Your task to perform on an android device: Open Yahoo.com Image 0: 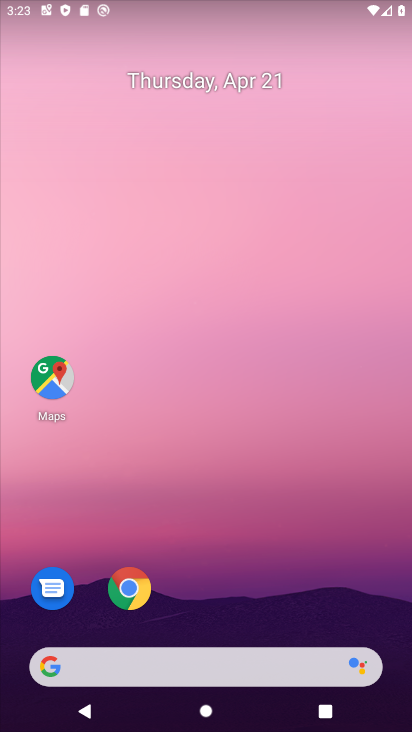
Step 0: click (108, 6)
Your task to perform on an android device: Open Yahoo.com Image 1: 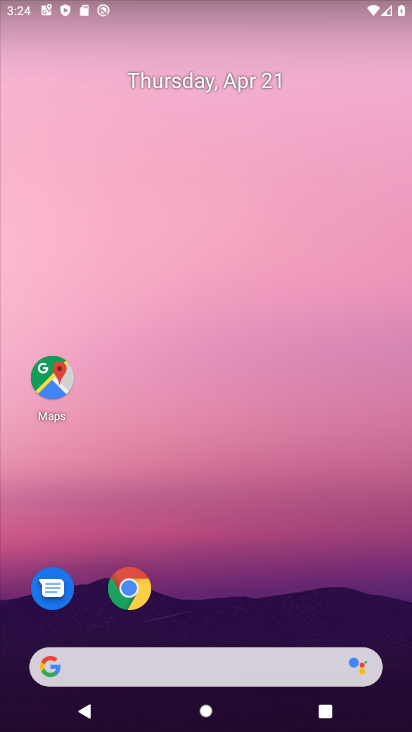
Step 1: drag from (172, 660) to (164, 89)
Your task to perform on an android device: Open Yahoo.com Image 2: 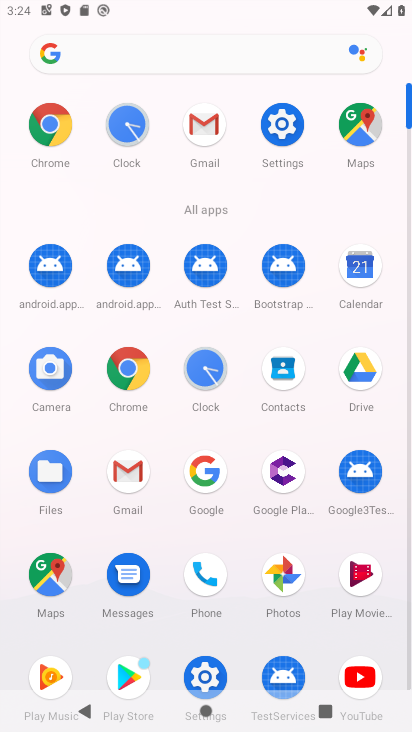
Step 2: click (42, 140)
Your task to perform on an android device: Open Yahoo.com Image 3: 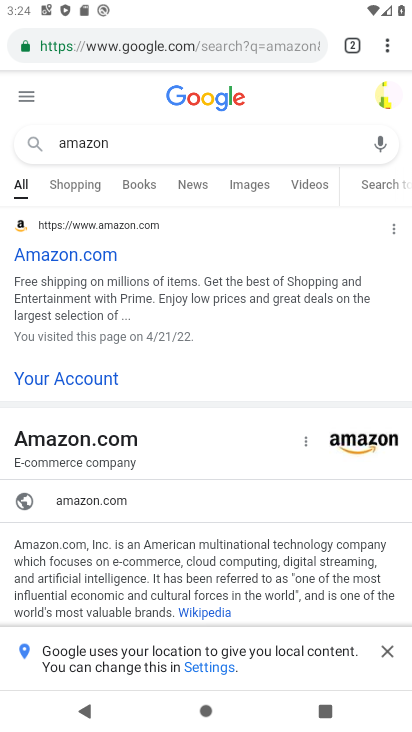
Step 3: click (190, 49)
Your task to perform on an android device: Open Yahoo.com Image 4: 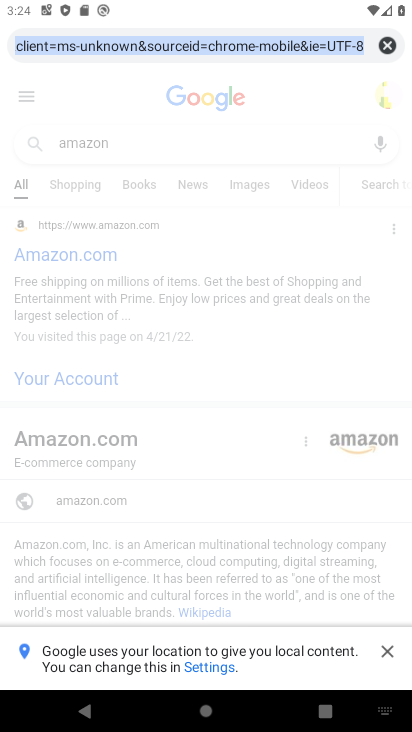
Step 4: type "yahoo.com"
Your task to perform on an android device: Open Yahoo.com Image 5: 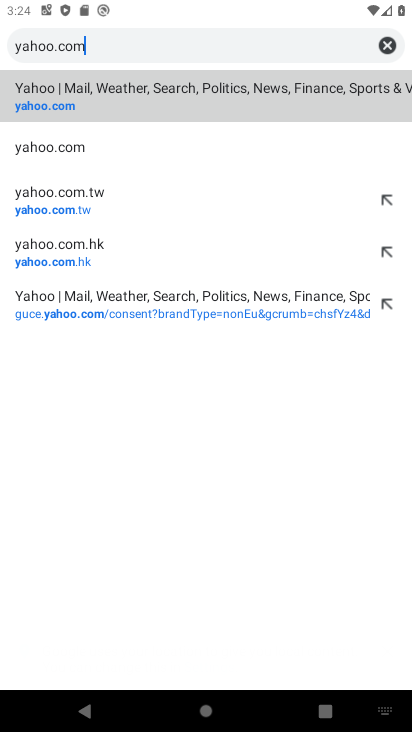
Step 5: click (110, 84)
Your task to perform on an android device: Open Yahoo.com Image 6: 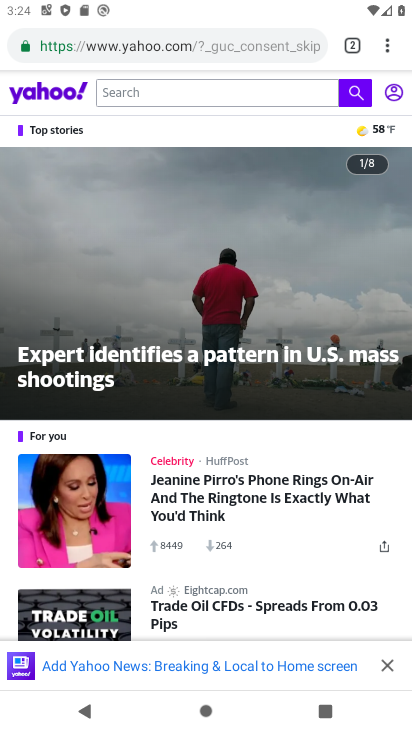
Step 6: task complete